Your task to perform on an android device: Go to Wikipedia Image 0: 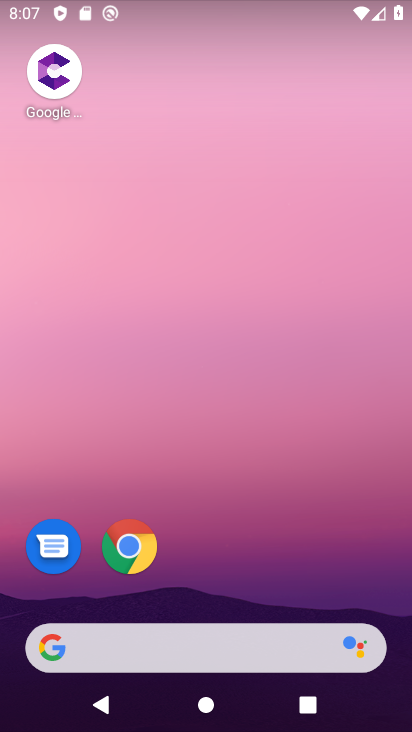
Step 0: press home button
Your task to perform on an android device: Go to Wikipedia Image 1: 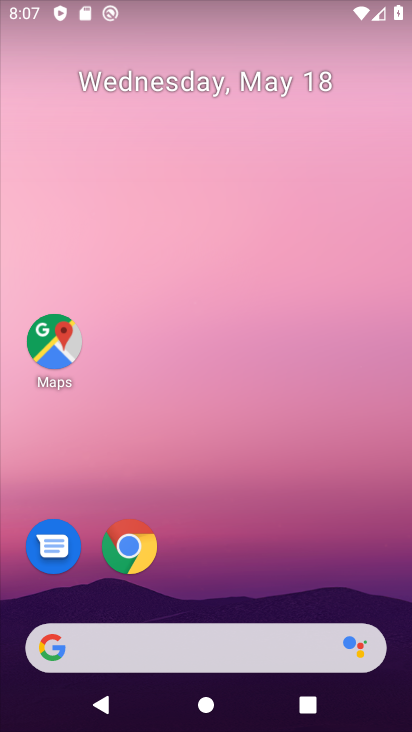
Step 1: drag from (236, 679) to (219, 260)
Your task to perform on an android device: Go to Wikipedia Image 2: 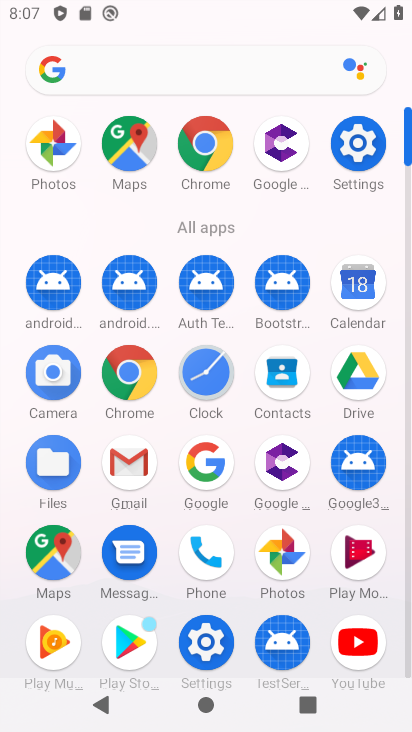
Step 2: click (197, 168)
Your task to perform on an android device: Go to Wikipedia Image 3: 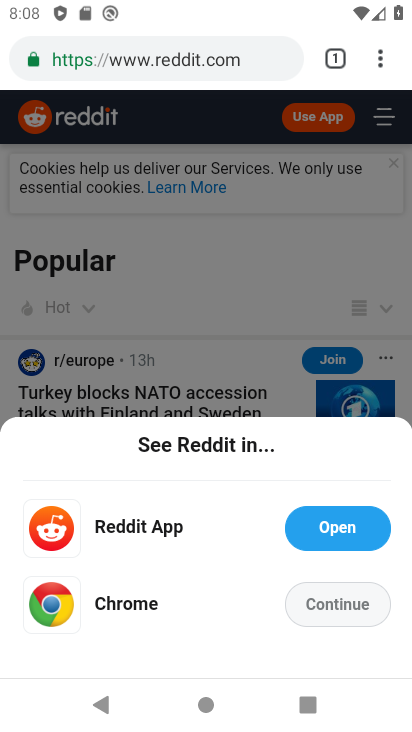
Step 3: click (329, 56)
Your task to perform on an android device: Go to Wikipedia Image 4: 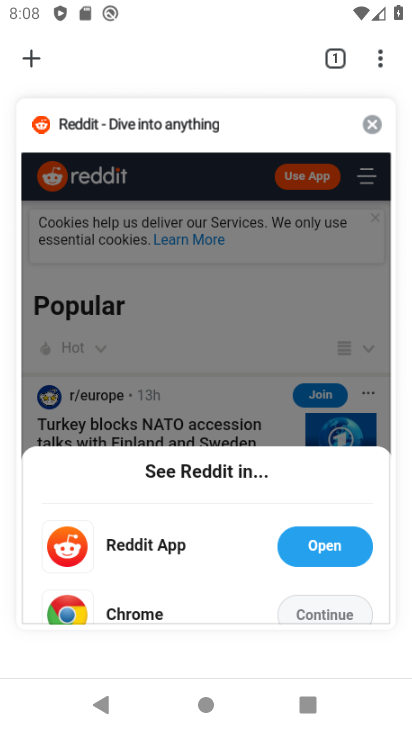
Step 4: click (34, 61)
Your task to perform on an android device: Go to Wikipedia Image 5: 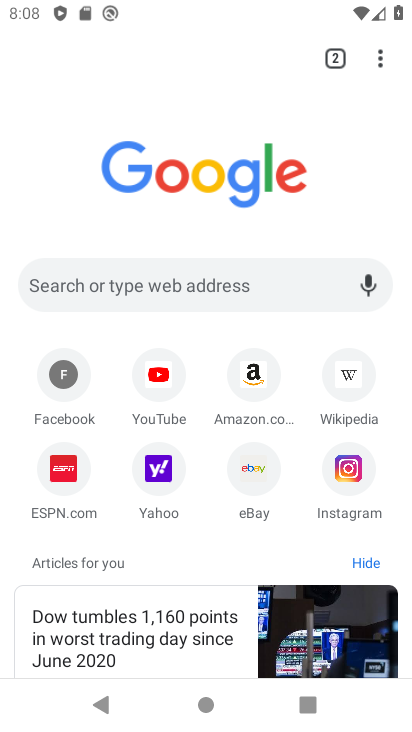
Step 5: click (336, 391)
Your task to perform on an android device: Go to Wikipedia Image 6: 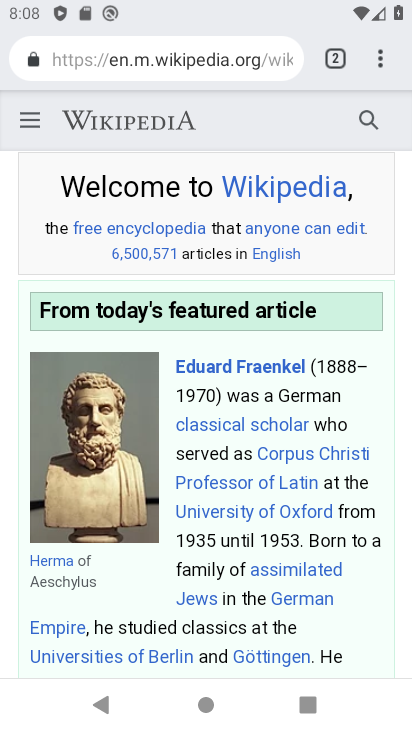
Step 6: task complete